Your task to perform on an android device: Open calendar and show me the second week of next month Image 0: 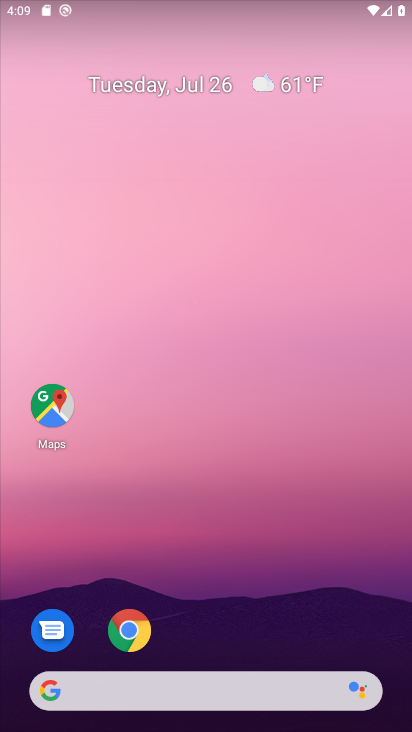
Step 0: drag from (260, 664) to (233, 73)
Your task to perform on an android device: Open calendar and show me the second week of next month Image 1: 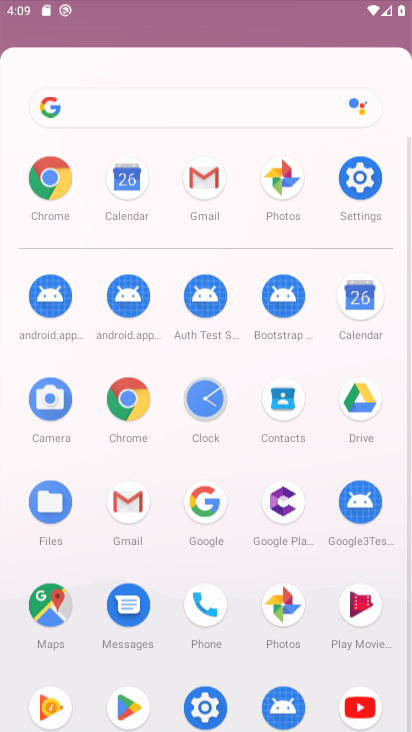
Step 1: drag from (199, 544) to (152, 195)
Your task to perform on an android device: Open calendar and show me the second week of next month Image 2: 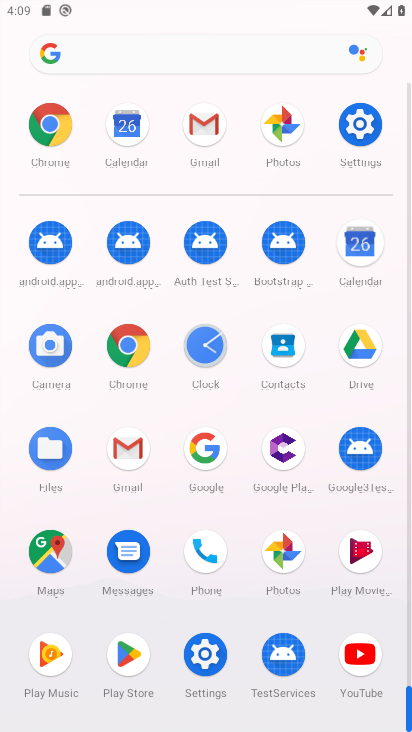
Step 2: click (358, 239)
Your task to perform on an android device: Open calendar and show me the second week of next month Image 3: 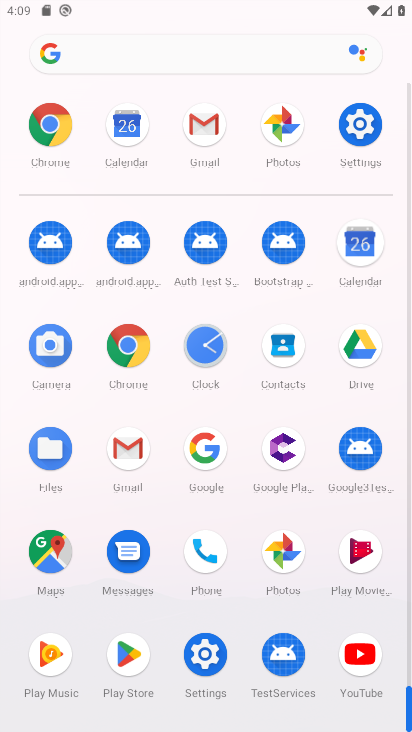
Step 3: click (363, 240)
Your task to perform on an android device: Open calendar and show me the second week of next month Image 4: 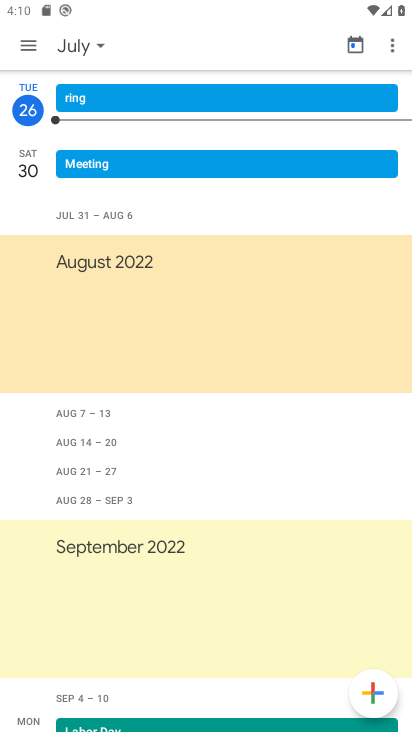
Step 4: click (98, 43)
Your task to perform on an android device: Open calendar and show me the second week of next month Image 5: 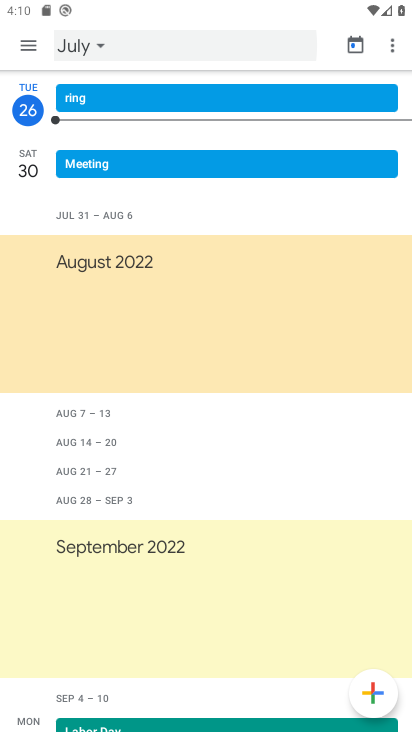
Step 5: click (98, 44)
Your task to perform on an android device: Open calendar and show me the second week of next month Image 6: 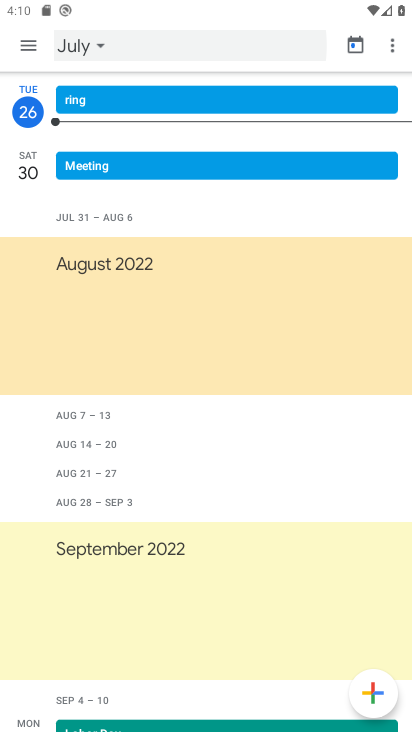
Step 6: click (103, 48)
Your task to perform on an android device: Open calendar and show me the second week of next month Image 7: 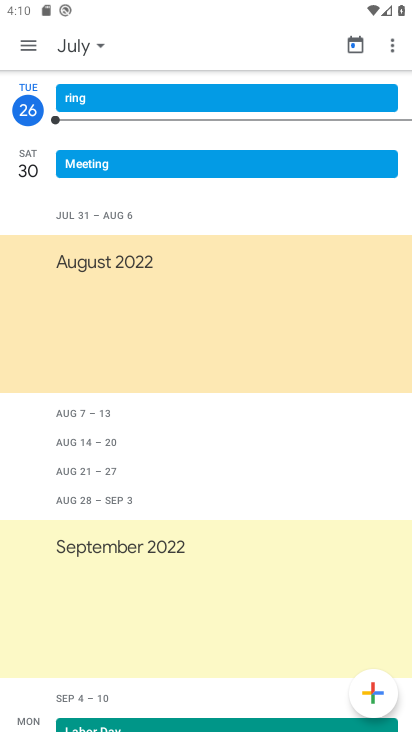
Step 7: click (101, 46)
Your task to perform on an android device: Open calendar and show me the second week of next month Image 8: 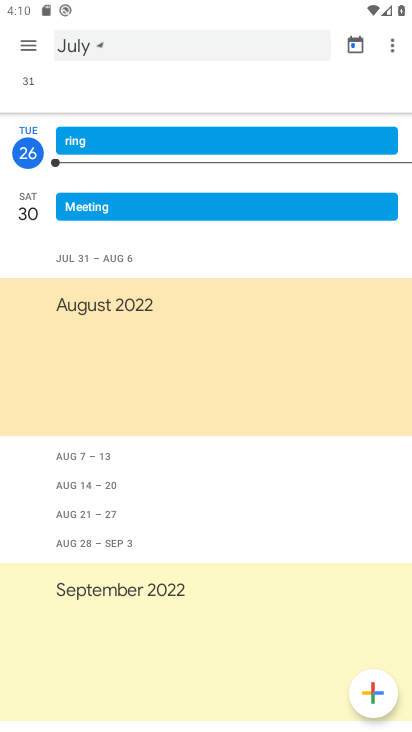
Step 8: click (100, 44)
Your task to perform on an android device: Open calendar and show me the second week of next month Image 9: 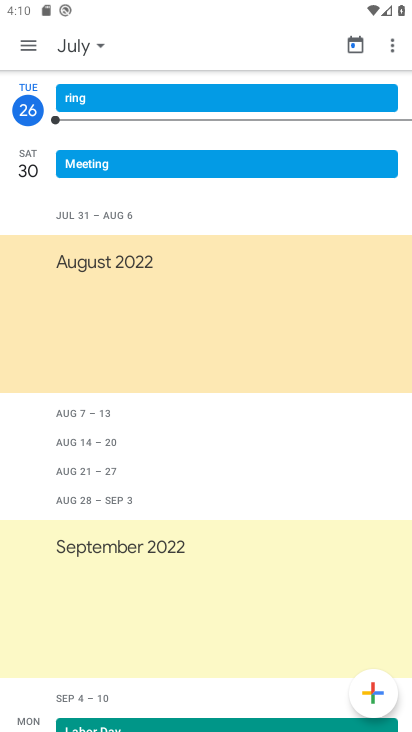
Step 9: click (95, 50)
Your task to perform on an android device: Open calendar and show me the second week of next month Image 10: 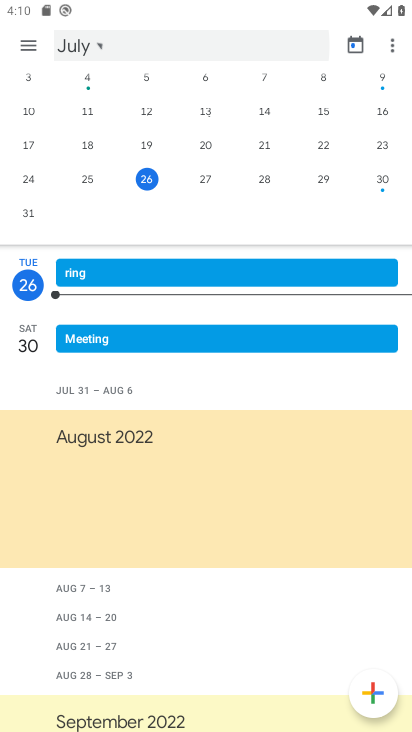
Step 10: click (93, 44)
Your task to perform on an android device: Open calendar and show me the second week of next month Image 11: 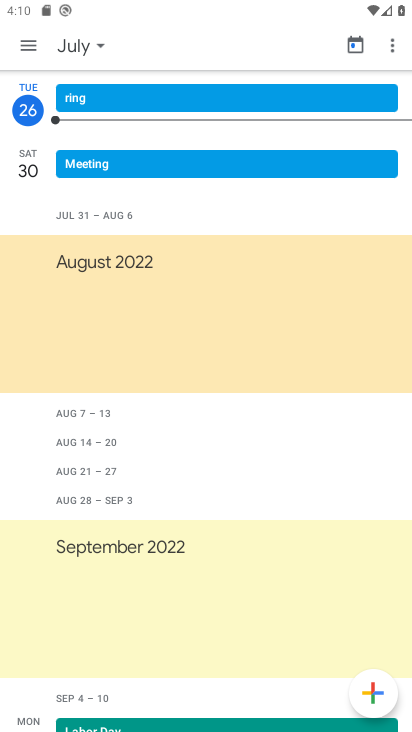
Step 11: click (99, 43)
Your task to perform on an android device: Open calendar and show me the second week of next month Image 12: 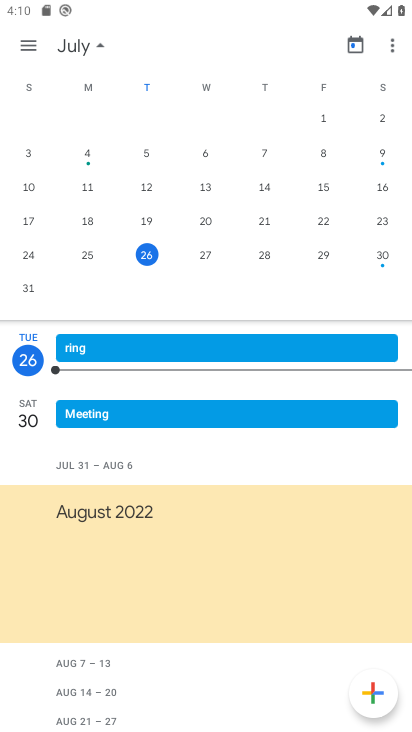
Step 12: drag from (315, 205) to (107, 217)
Your task to perform on an android device: Open calendar and show me the second week of next month Image 13: 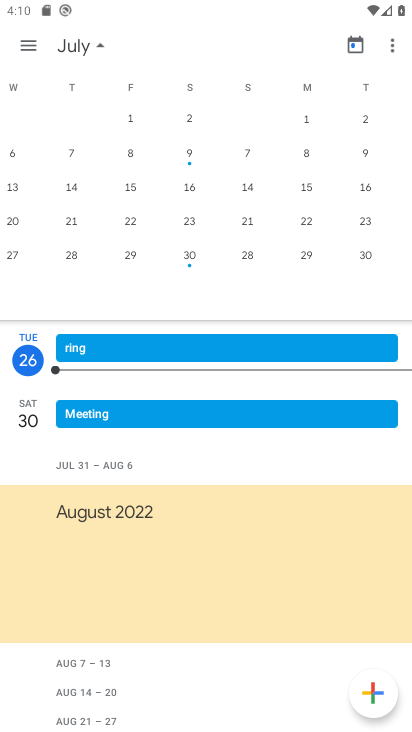
Step 13: drag from (312, 204) to (104, 209)
Your task to perform on an android device: Open calendar and show me the second week of next month Image 14: 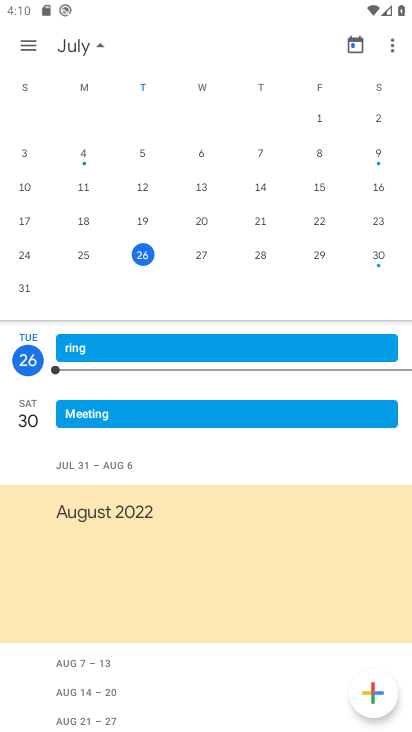
Step 14: drag from (264, 212) to (5, 188)
Your task to perform on an android device: Open calendar and show me the second week of next month Image 15: 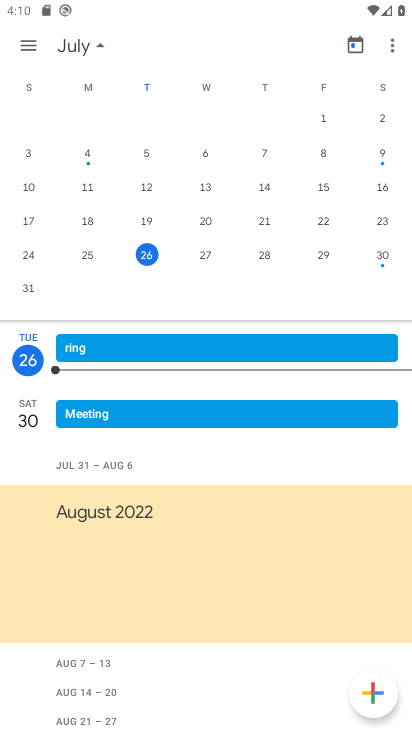
Step 15: drag from (267, 171) to (11, 152)
Your task to perform on an android device: Open calendar and show me the second week of next month Image 16: 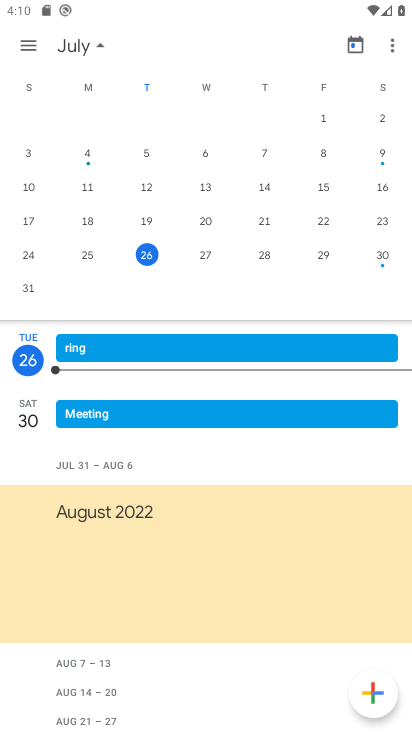
Step 16: drag from (257, 195) to (59, 216)
Your task to perform on an android device: Open calendar and show me the second week of next month Image 17: 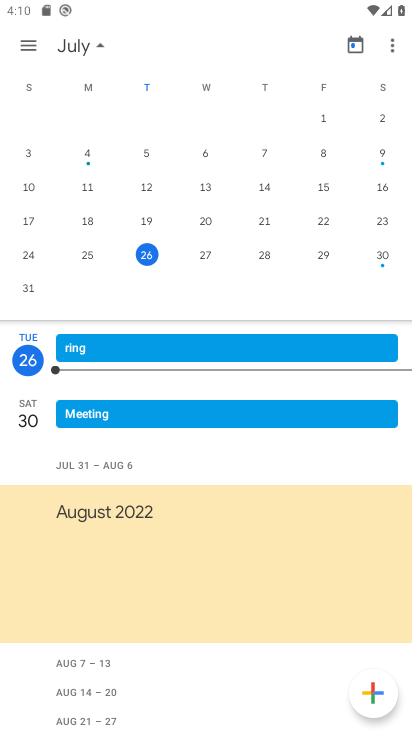
Step 17: drag from (261, 217) to (18, 223)
Your task to perform on an android device: Open calendar and show me the second week of next month Image 18: 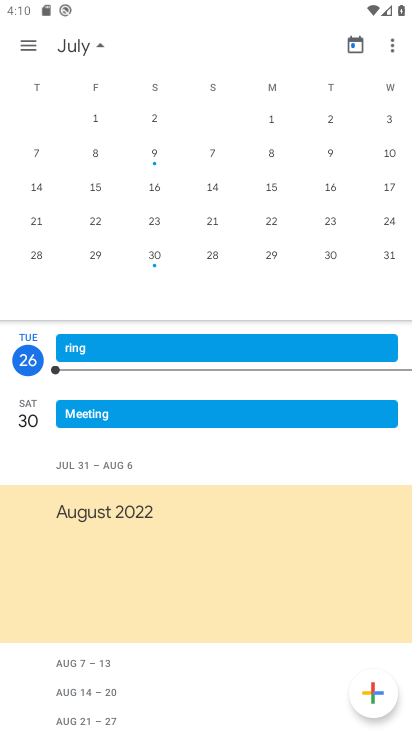
Step 18: drag from (268, 197) to (96, 197)
Your task to perform on an android device: Open calendar and show me the second week of next month Image 19: 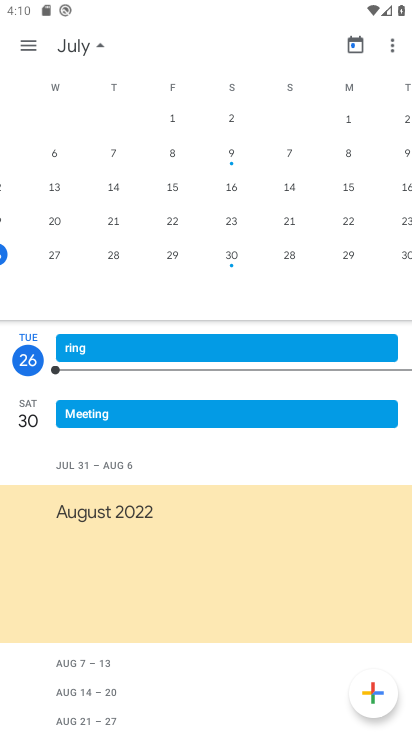
Step 19: drag from (259, 194) to (5, 193)
Your task to perform on an android device: Open calendar and show me the second week of next month Image 20: 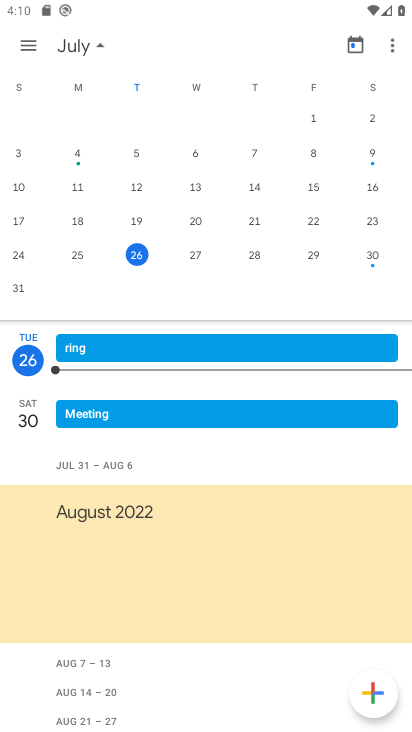
Step 20: drag from (55, 184) to (8, 183)
Your task to perform on an android device: Open calendar and show me the second week of next month Image 21: 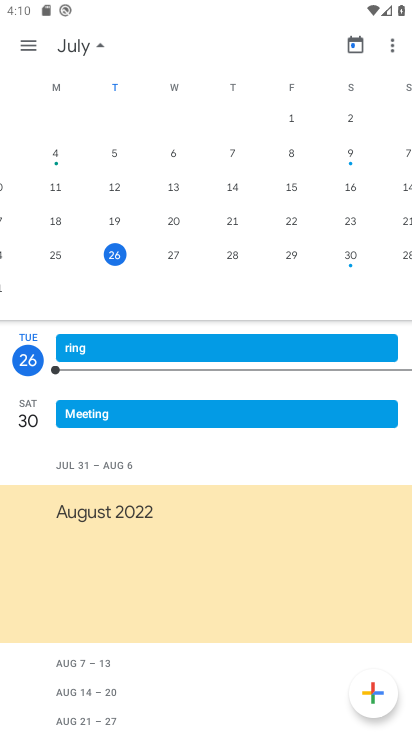
Step 21: drag from (190, 127) to (3, 155)
Your task to perform on an android device: Open calendar and show me the second week of next month Image 22: 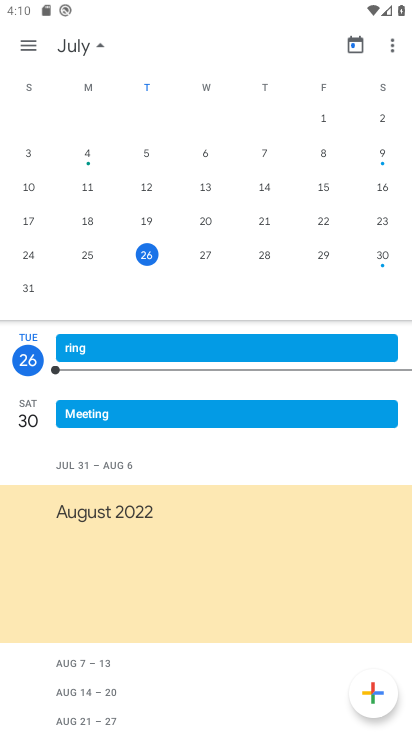
Step 22: drag from (252, 152) to (16, 137)
Your task to perform on an android device: Open calendar and show me the second week of next month Image 23: 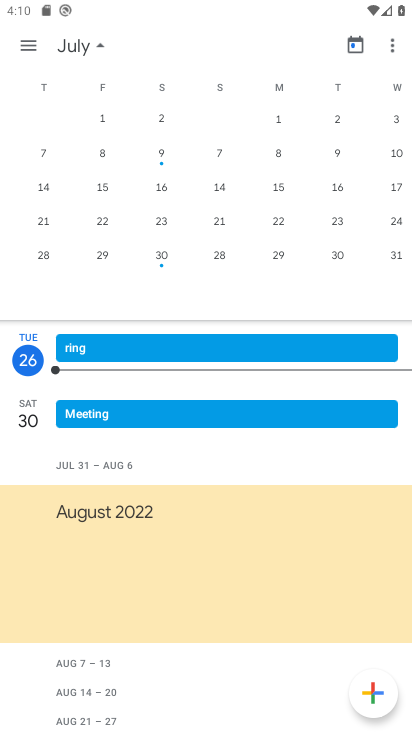
Step 23: drag from (250, 177) to (13, 198)
Your task to perform on an android device: Open calendar and show me the second week of next month Image 24: 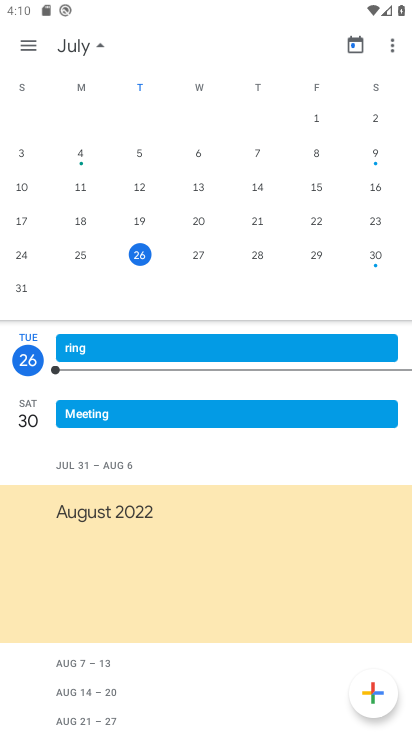
Step 24: drag from (262, 190) to (4, 159)
Your task to perform on an android device: Open calendar and show me the second week of next month Image 25: 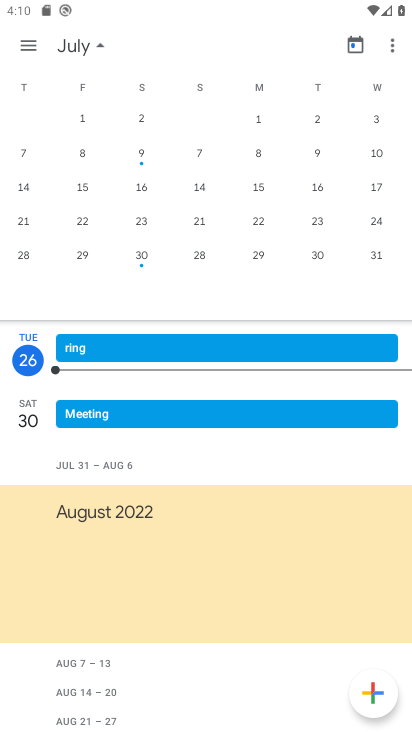
Step 25: drag from (55, 173) to (0, 167)
Your task to perform on an android device: Open calendar and show me the second week of next month Image 26: 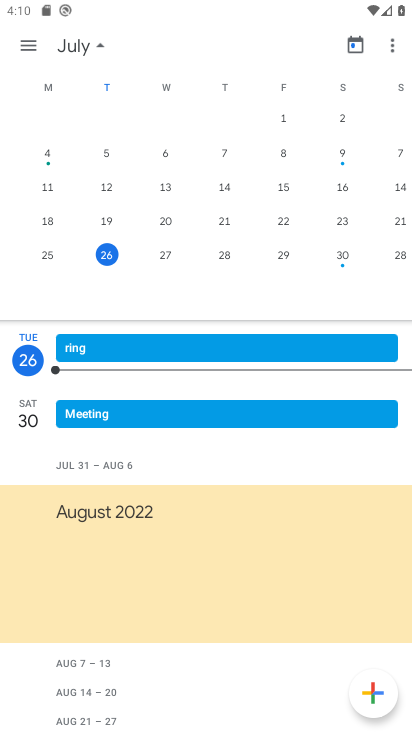
Step 26: drag from (44, 198) to (16, 153)
Your task to perform on an android device: Open calendar and show me the second week of next month Image 27: 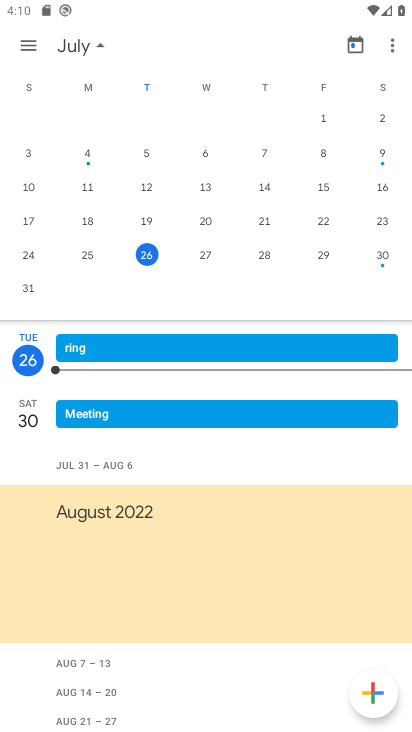
Step 27: drag from (262, 170) to (1, 236)
Your task to perform on an android device: Open calendar and show me the second week of next month Image 28: 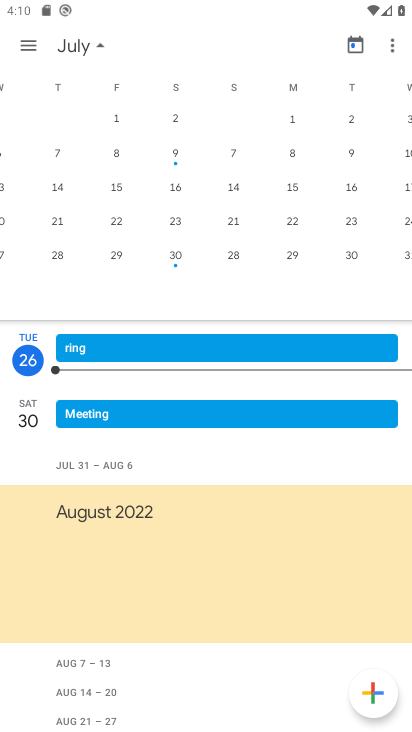
Step 28: drag from (297, 188) to (10, 220)
Your task to perform on an android device: Open calendar and show me the second week of next month Image 29: 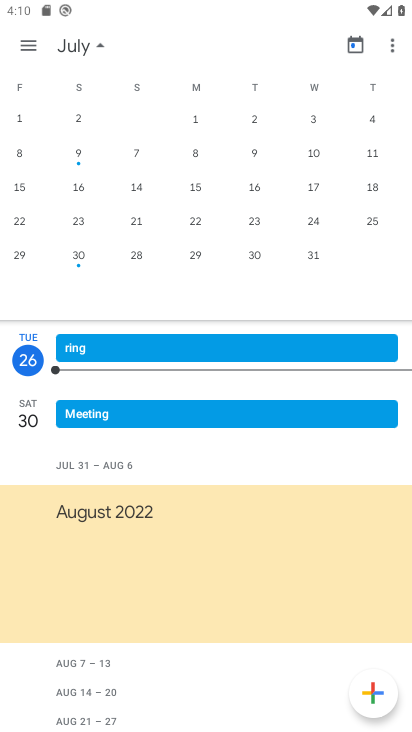
Step 29: drag from (275, 191) to (54, 123)
Your task to perform on an android device: Open calendar and show me the second week of next month Image 30: 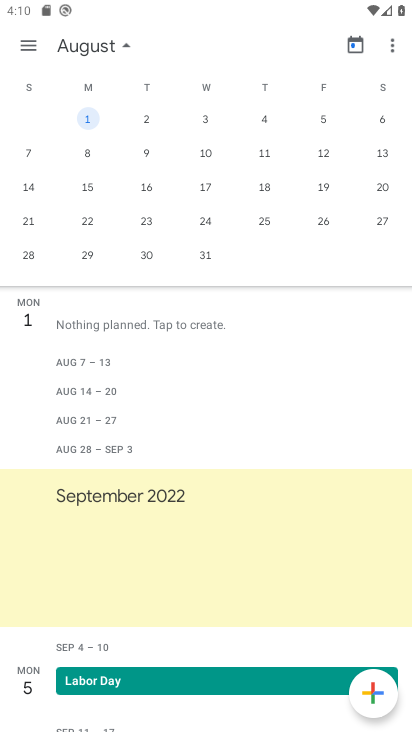
Step 30: click (138, 153)
Your task to perform on an android device: Open calendar and show me the second week of next month Image 31: 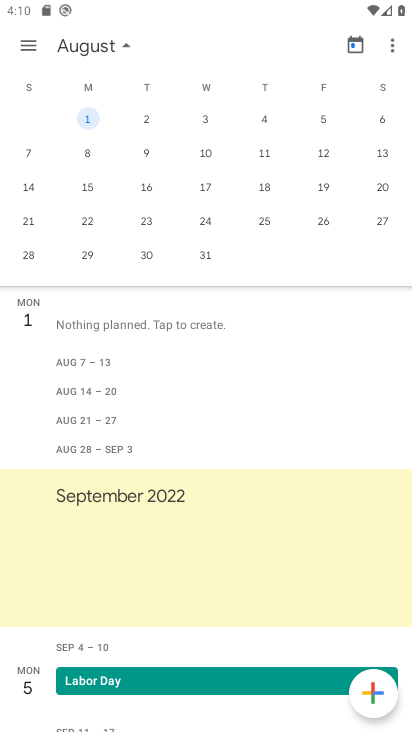
Step 31: click (144, 153)
Your task to perform on an android device: Open calendar and show me the second week of next month Image 32: 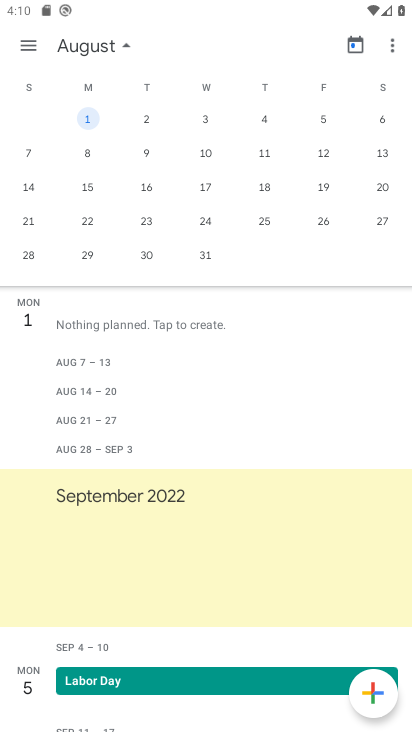
Step 32: click (145, 154)
Your task to perform on an android device: Open calendar and show me the second week of next month Image 33: 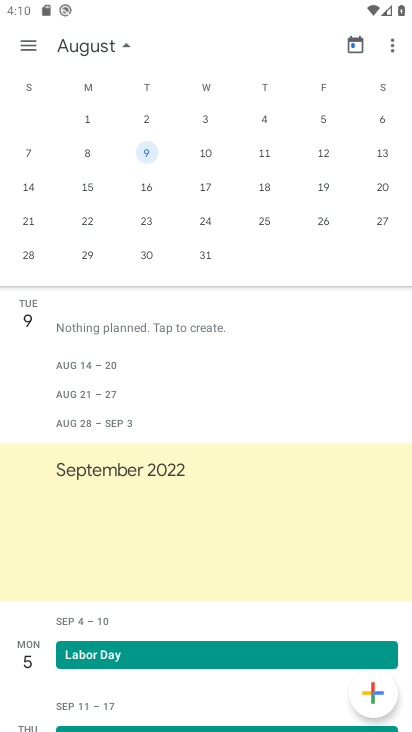
Step 33: click (147, 156)
Your task to perform on an android device: Open calendar and show me the second week of next month Image 34: 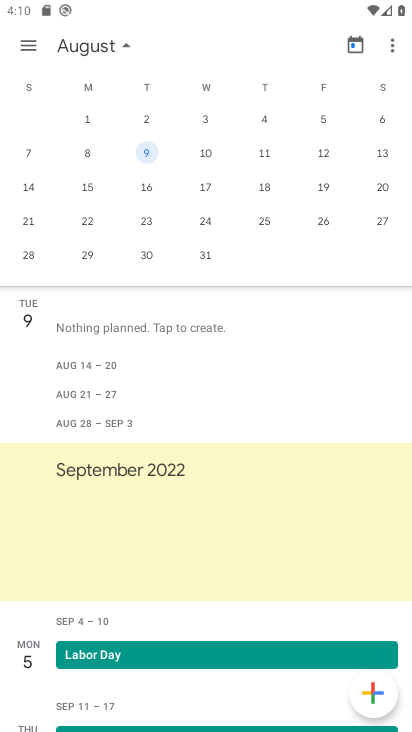
Step 34: task complete